Your task to perform on an android device: set the timer Image 0: 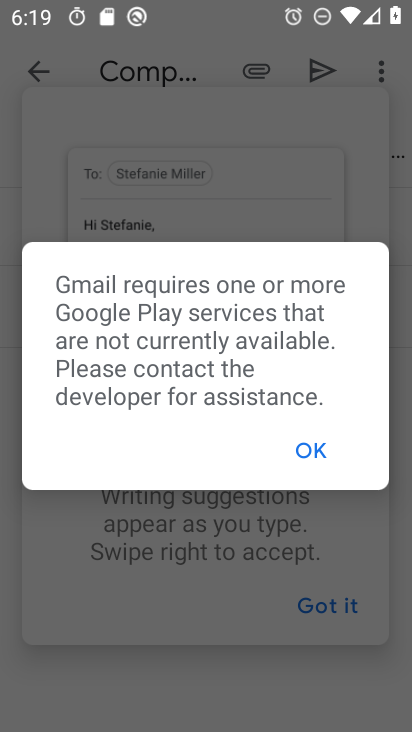
Step 0: press back button
Your task to perform on an android device: set the timer Image 1: 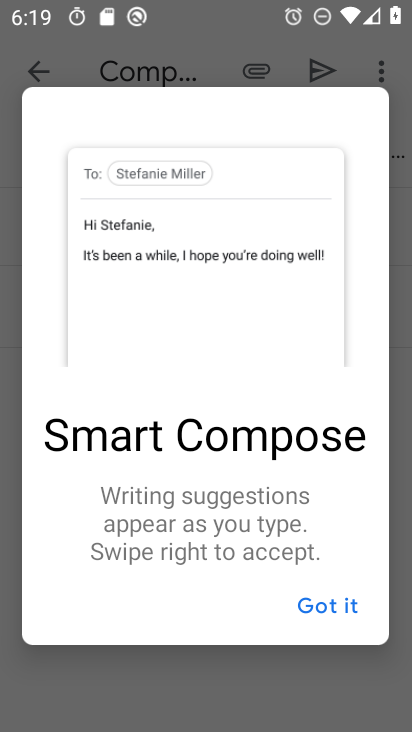
Step 1: press home button
Your task to perform on an android device: set the timer Image 2: 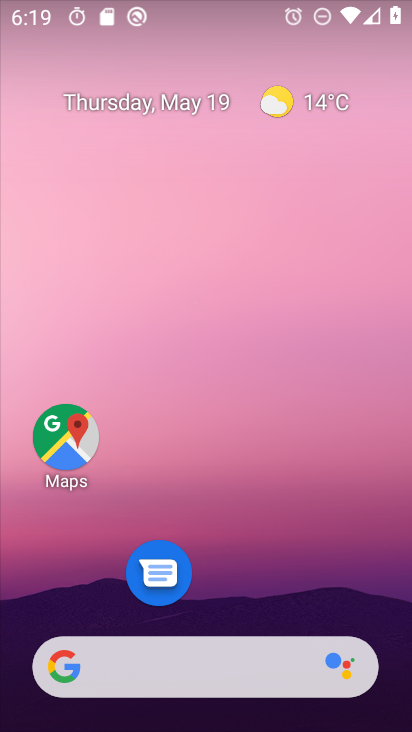
Step 2: drag from (253, 618) to (179, 277)
Your task to perform on an android device: set the timer Image 3: 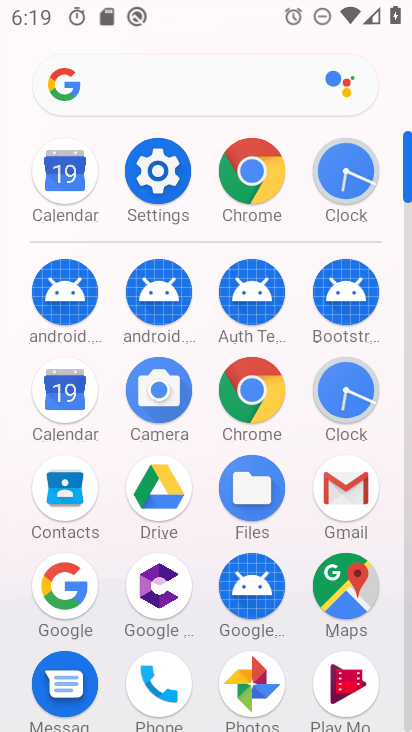
Step 3: drag from (227, 581) to (236, 248)
Your task to perform on an android device: set the timer Image 4: 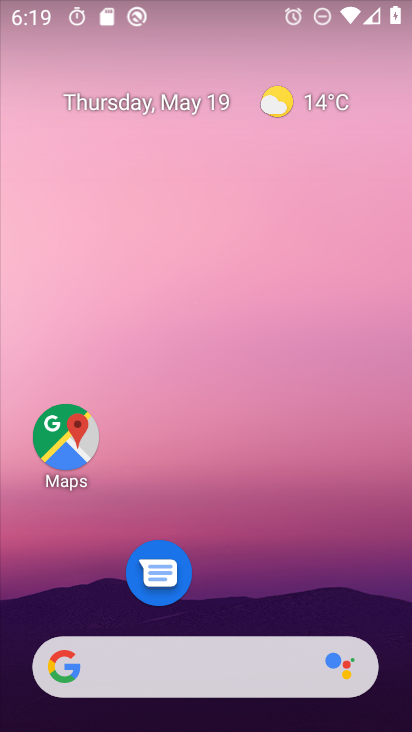
Step 4: click (327, 412)
Your task to perform on an android device: set the timer Image 5: 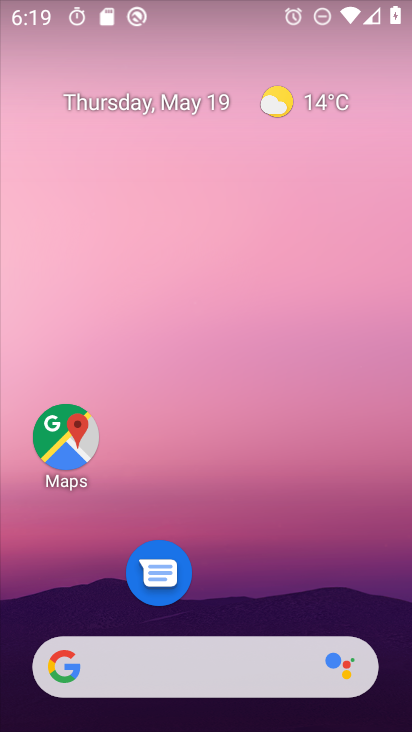
Step 5: drag from (243, 572) to (264, 7)
Your task to perform on an android device: set the timer Image 6: 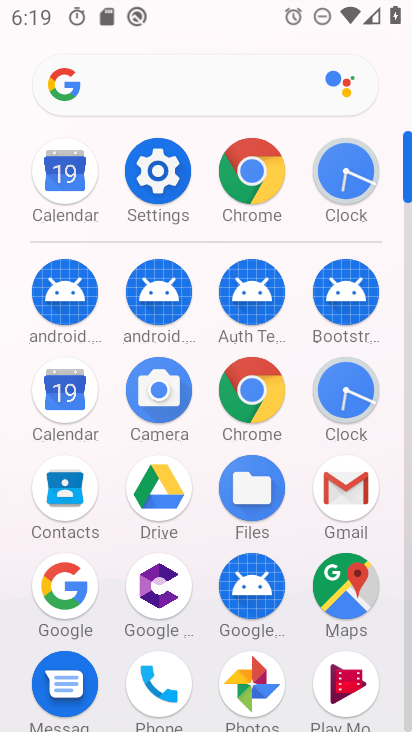
Step 6: drag from (218, 585) to (275, 223)
Your task to perform on an android device: set the timer Image 7: 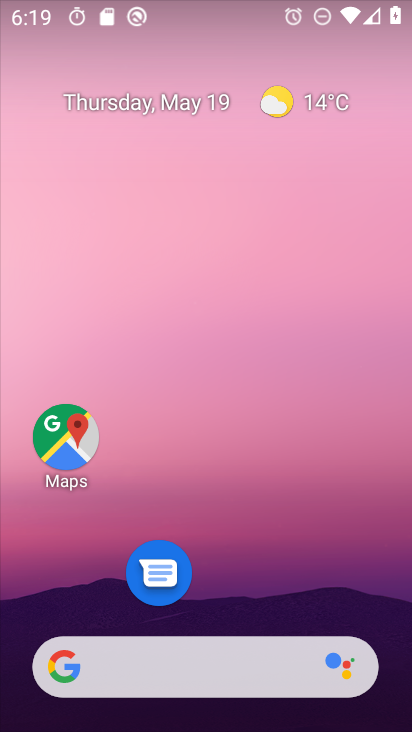
Step 7: click (353, 397)
Your task to perform on an android device: set the timer Image 8: 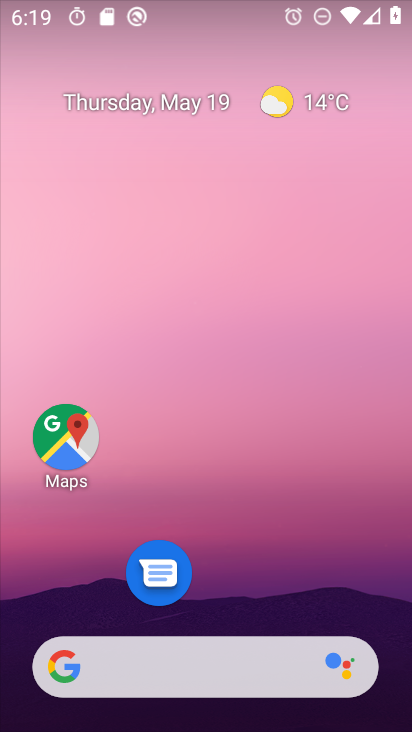
Step 8: drag from (244, 580) to (290, 6)
Your task to perform on an android device: set the timer Image 9: 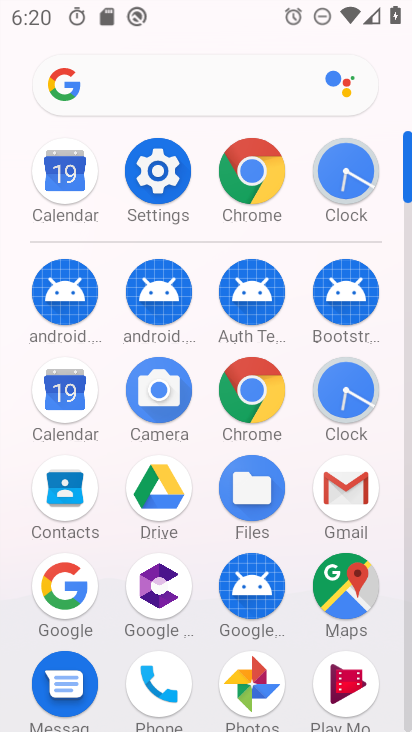
Step 9: click (344, 395)
Your task to perform on an android device: set the timer Image 10: 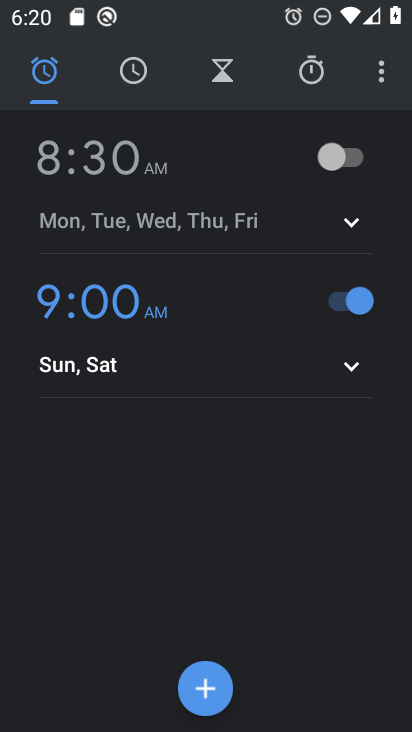
Step 10: click (222, 76)
Your task to perform on an android device: set the timer Image 11: 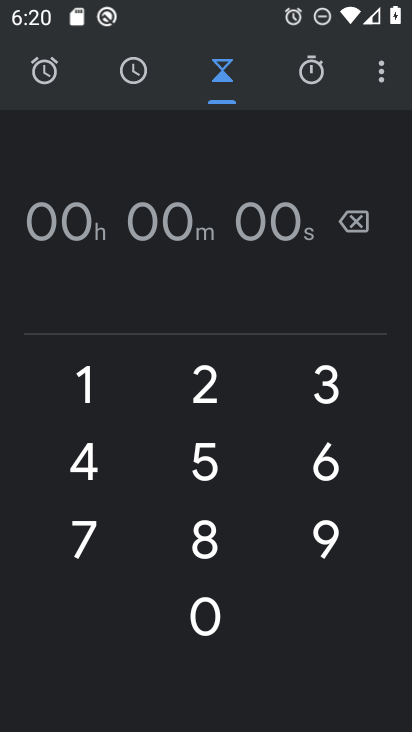
Step 11: click (214, 423)
Your task to perform on an android device: set the timer Image 12: 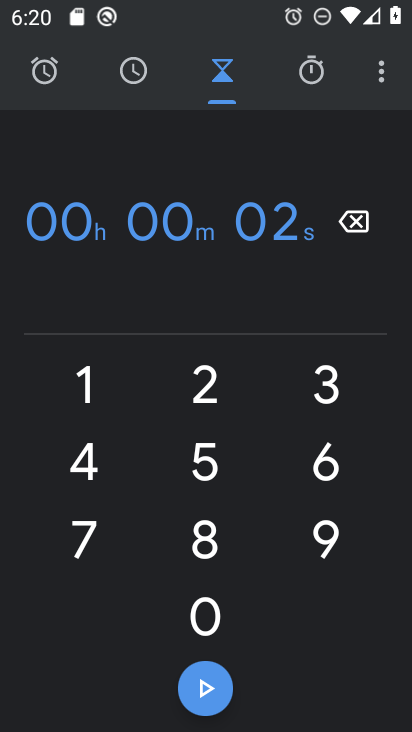
Step 12: click (206, 634)
Your task to perform on an android device: set the timer Image 13: 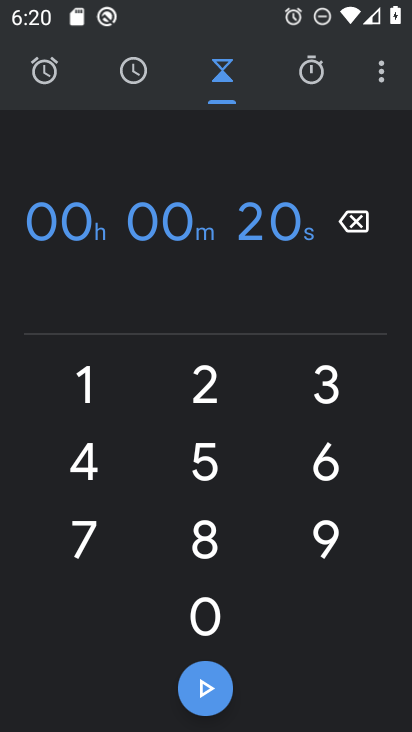
Step 13: click (219, 384)
Your task to perform on an android device: set the timer Image 14: 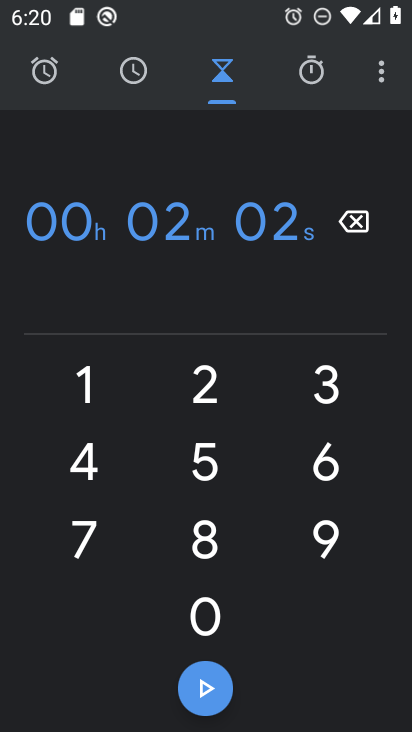
Step 14: click (221, 629)
Your task to perform on an android device: set the timer Image 15: 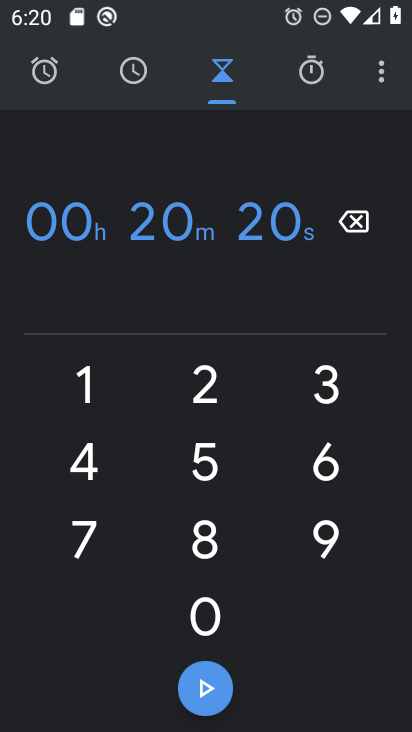
Step 15: click (212, 697)
Your task to perform on an android device: set the timer Image 16: 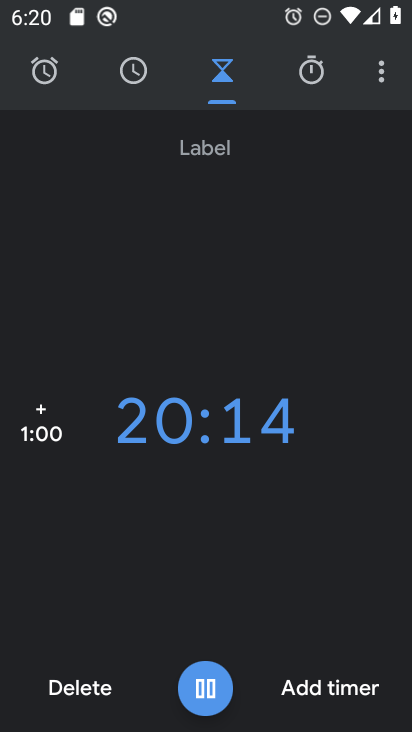
Step 16: task complete